Your task to perform on an android device: Set the phone to "Do not disturb". Image 0: 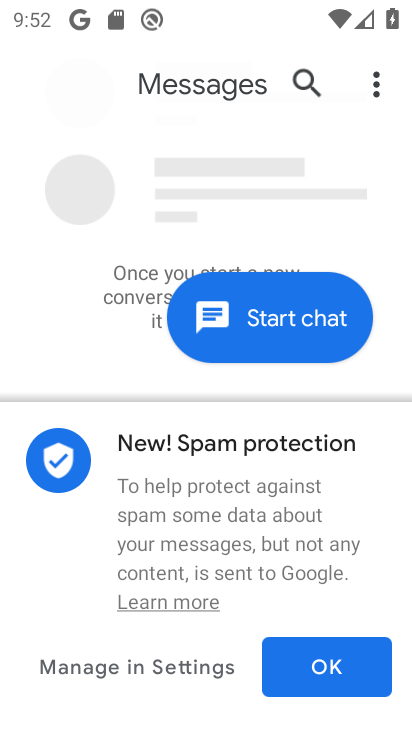
Step 0: press home button
Your task to perform on an android device: Set the phone to "Do not disturb". Image 1: 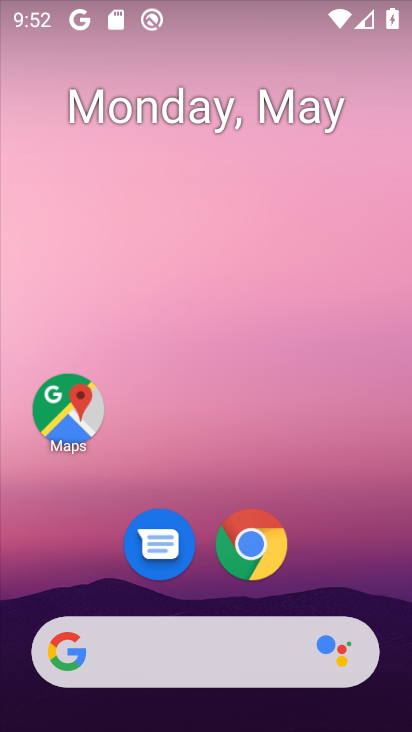
Step 1: drag from (278, 432) to (197, 110)
Your task to perform on an android device: Set the phone to "Do not disturb". Image 2: 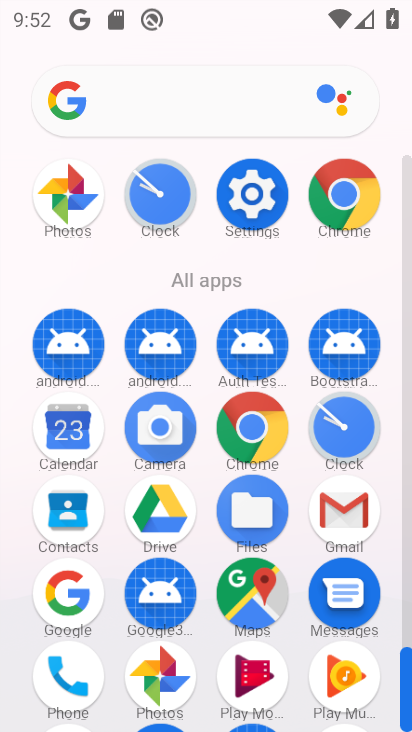
Step 2: click (257, 220)
Your task to perform on an android device: Set the phone to "Do not disturb". Image 3: 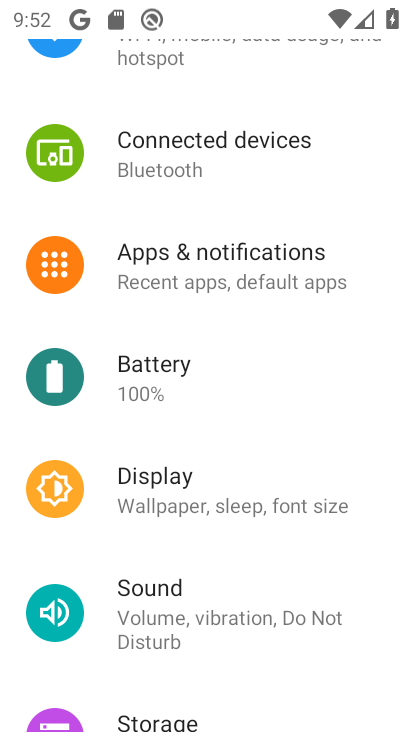
Step 3: click (189, 629)
Your task to perform on an android device: Set the phone to "Do not disturb". Image 4: 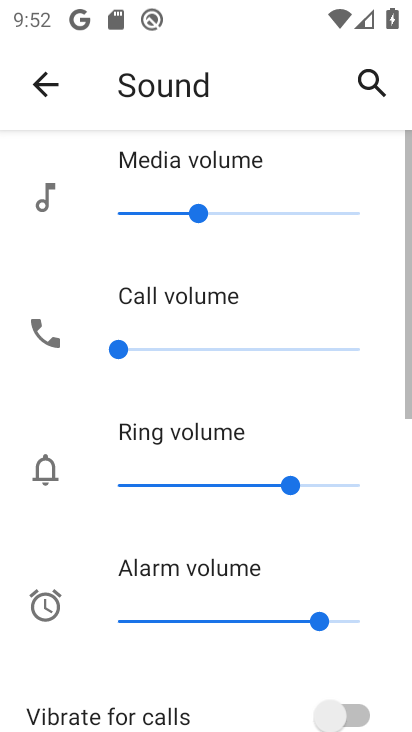
Step 4: drag from (180, 683) to (192, 254)
Your task to perform on an android device: Set the phone to "Do not disturb". Image 5: 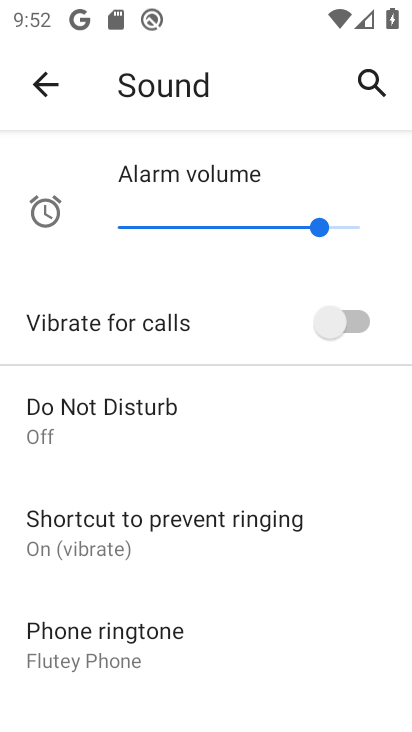
Step 5: click (81, 418)
Your task to perform on an android device: Set the phone to "Do not disturb". Image 6: 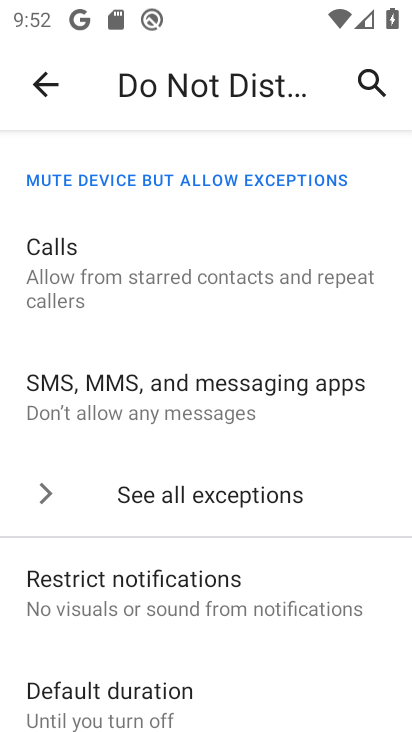
Step 6: drag from (183, 634) to (176, 151)
Your task to perform on an android device: Set the phone to "Do not disturb". Image 7: 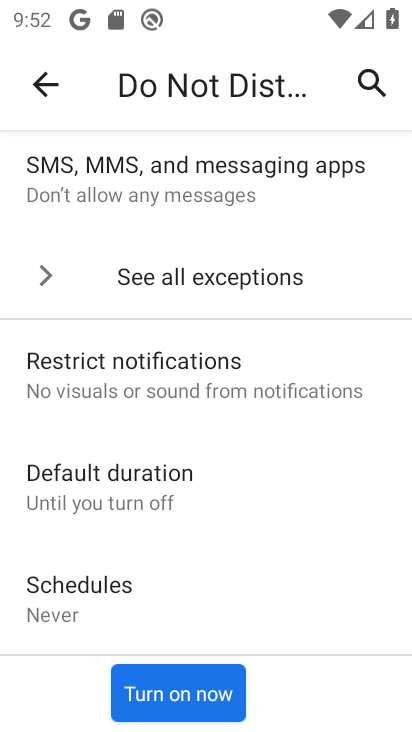
Step 7: click (183, 703)
Your task to perform on an android device: Set the phone to "Do not disturb". Image 8: 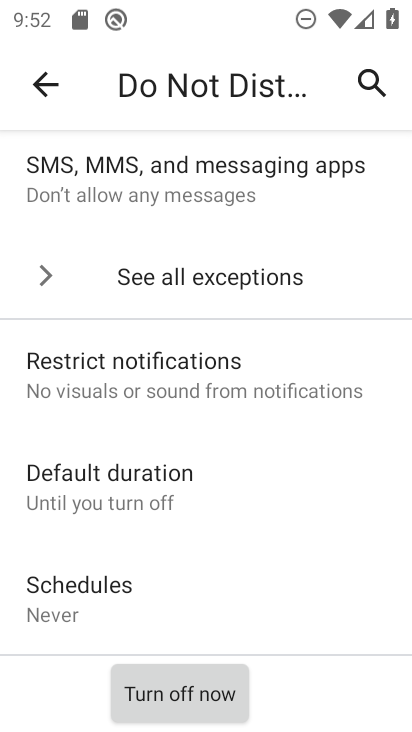
Step 8: task complete